Your task to perform on an android device: Open location settings Image 0: 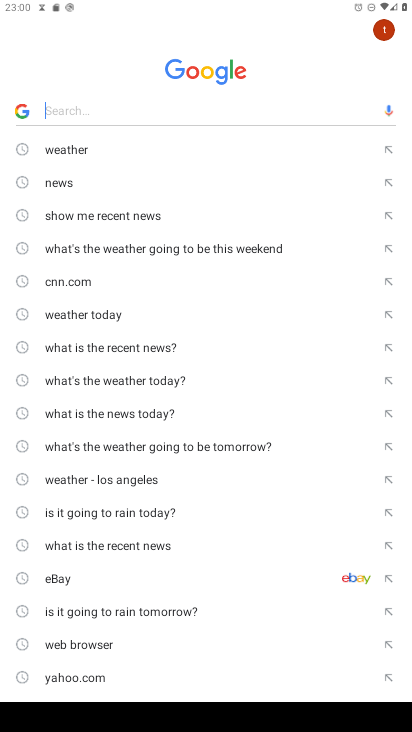
Step 0: press home button
Your task to perform on an android device: Open location settings Image 1: 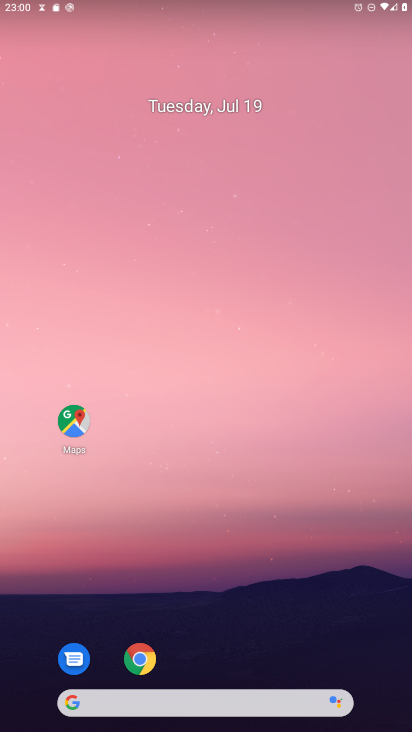
Step 1: drag from (227, 647) to (217, 145)
Your task to perform on an android device: Open location settings Image 2: 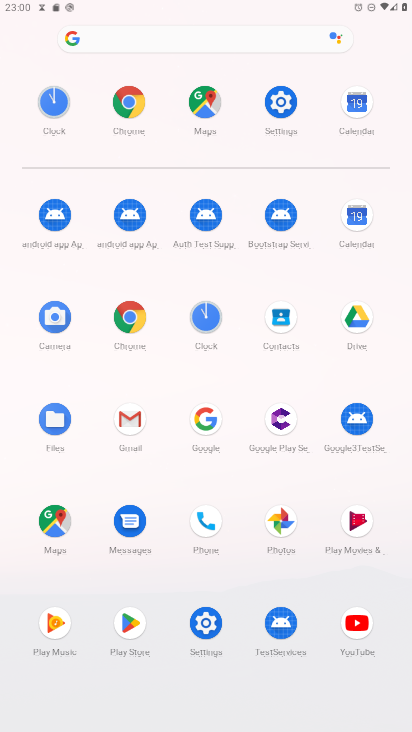
Step 2: click (295, 98)
Your task to perform on an android device: Open location settings Image 3: 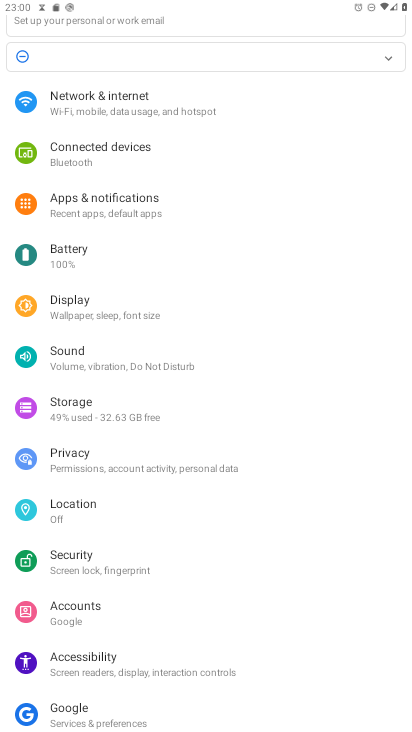
Step 3: click (95, 493)
Your task to perform on an android device: Open location settings Image 4: 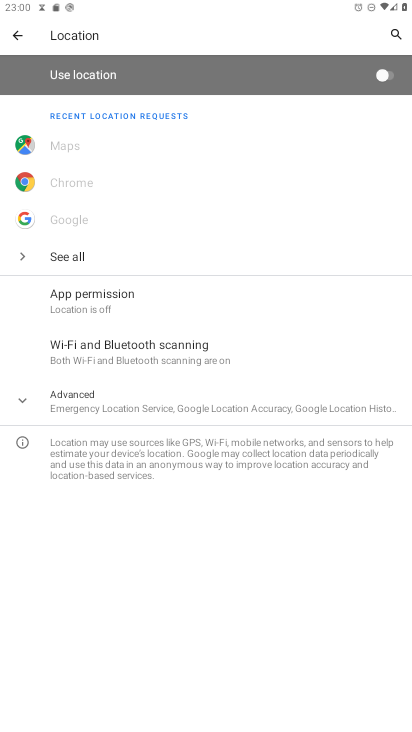
Step 4: task complete